Your task to perform on an android device: change the clock style Image 0: 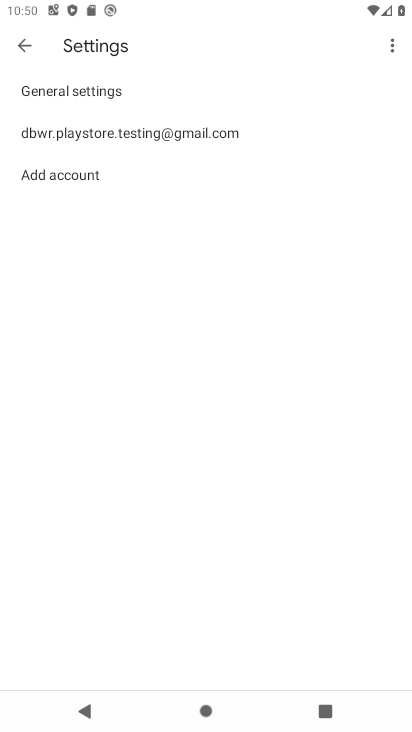
Step 0: press home button
Your task to perform on an android device: change the clock style Image 1: 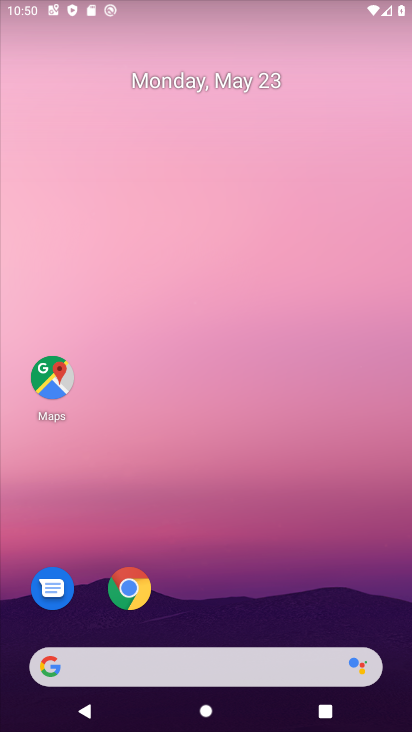
Step 1: drag from (223, 617) to (241, 4)
Your task to perform on an android device: change the clock style Image 2: 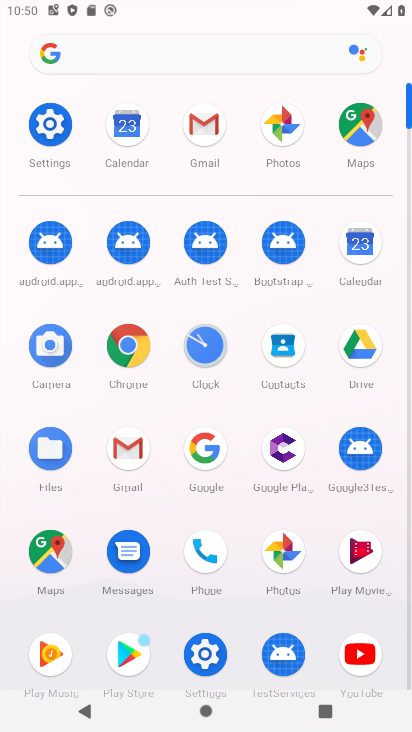
Step 2: click (192, 337)
Your task to perform on an android device: change the clock style Image 3: 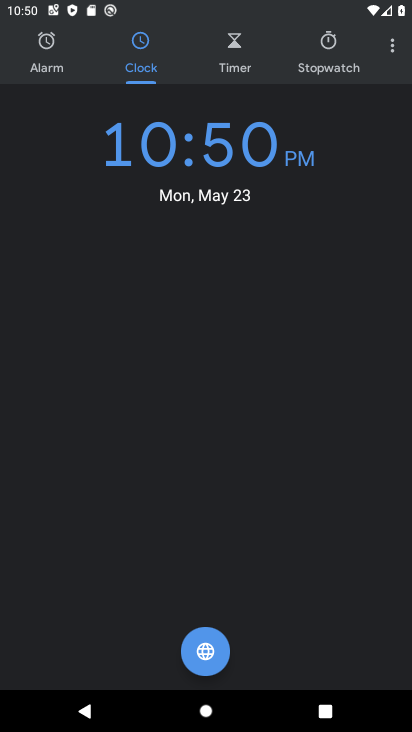
Step 3: click (388, 43)
Your task to perform on an android device: change the clock style Image 4: 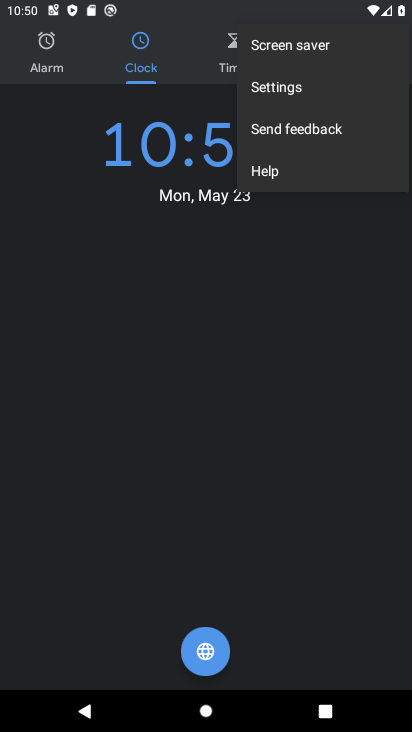
Step 4: click (278, 103)
Your task to perform on an android device: change the clock style Image 5: 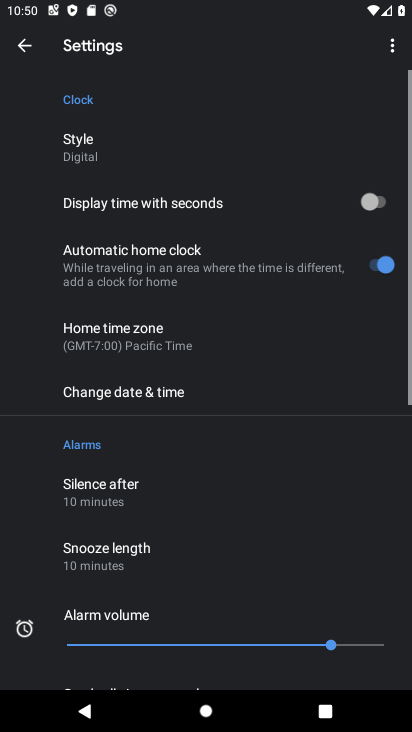
Step 5: click (109, 160)
Your task to perform on an android device: change the clock style Image 6: 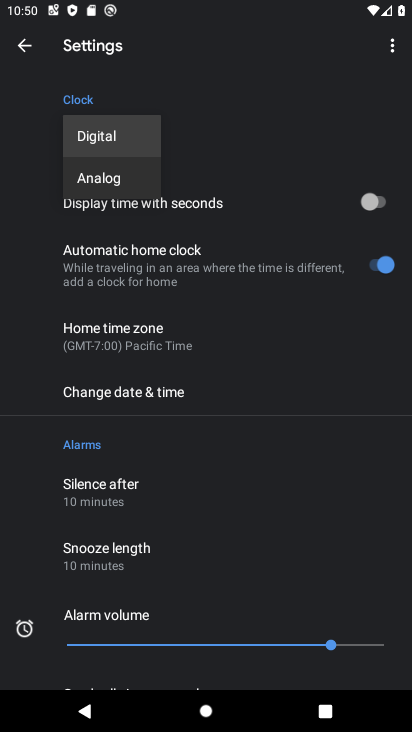
Step 6: click (100, 192)
Your task to perform on an android device: change the clock style Image 7: 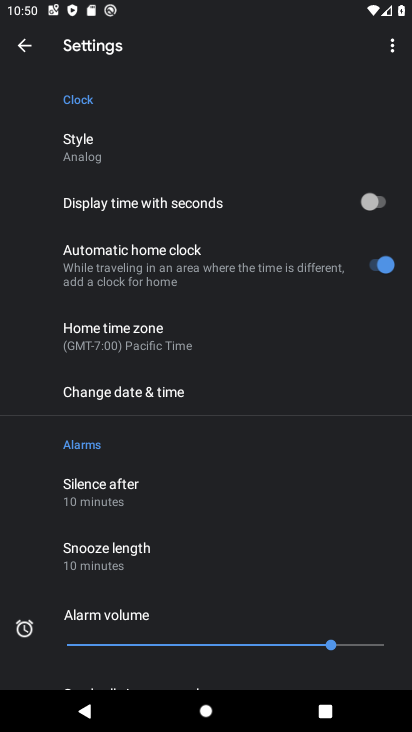
Step 7: task complete